Your task to perform on an android device: change alarm snooze length Image 0: 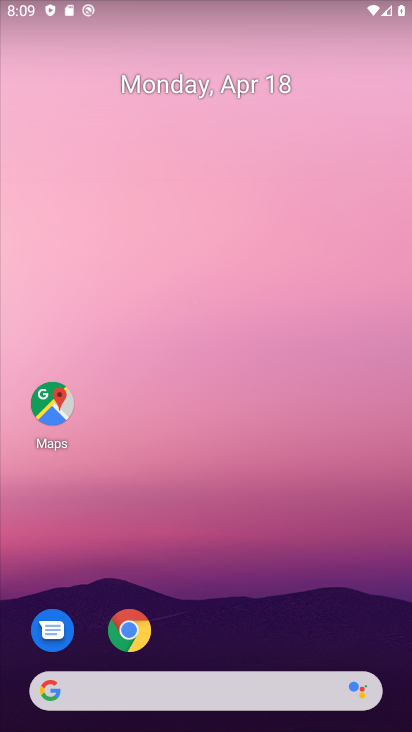
Step 0: drag from (212, 646) to (391, 37)
Your task to perform on an android device: change alarm snooze length Image 1: 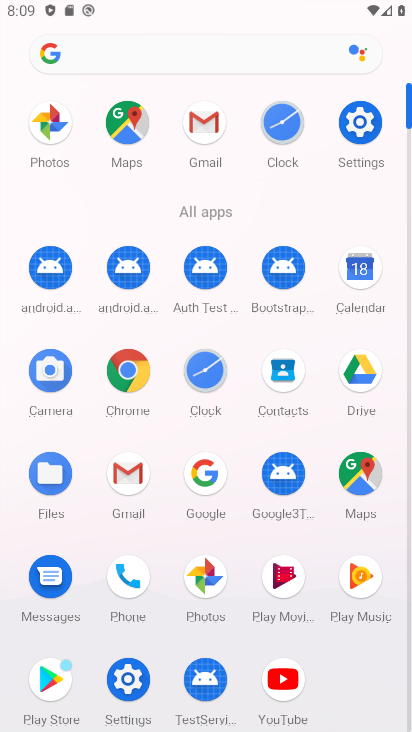
Step 1: click (283, 121)
Your task to perform on an android device: change alarm snooze length Image 2: 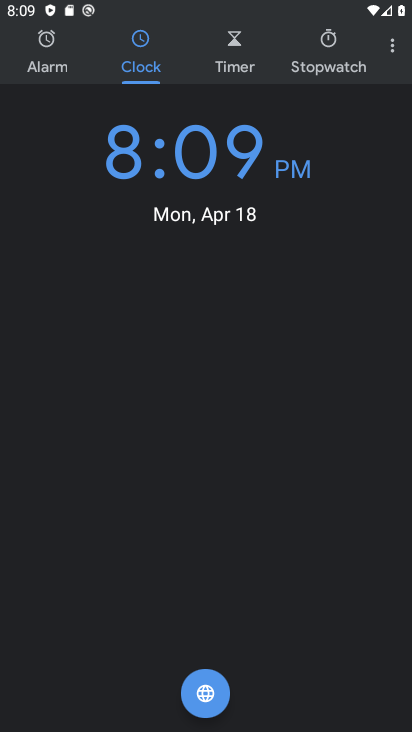
Step 2: click (389, 51)
Your task to perform on an android device: change alarm snooze length Image 3: 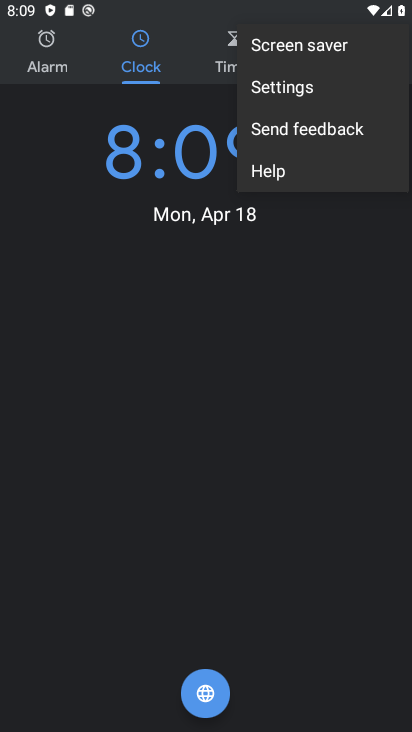
Step 3: click (294, 85)
Your task to perform on an android device: change alarm snooze length Image 4: 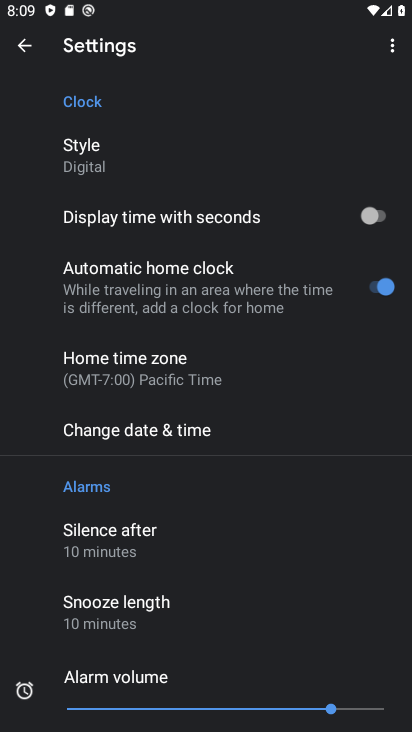
Step 4: click (145, 612)
Your task to perform on an android device: change alarm snooze length Image 5: 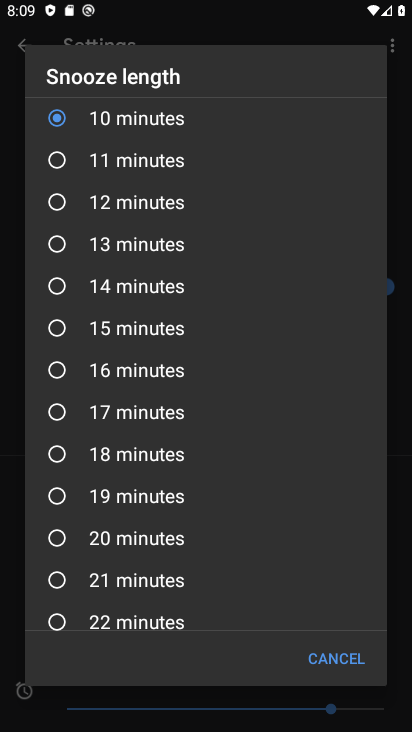
Step 5: click (58, 330)
Your task to perform on an android device: change alarm snooze length Image 6: 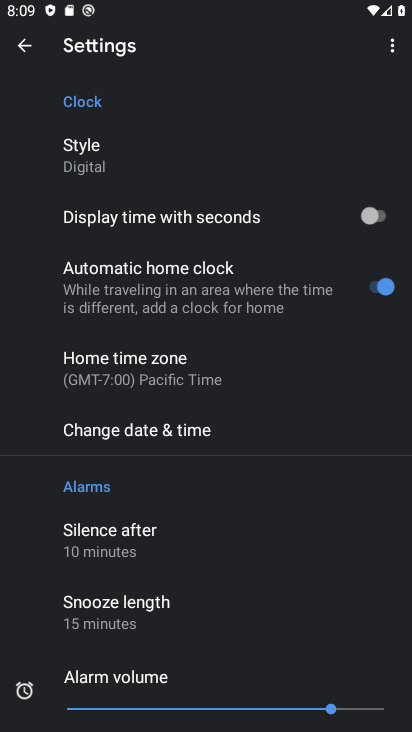
Step 6: task complete